Your task to perform on an android device: When is my next meeting? Image 0: 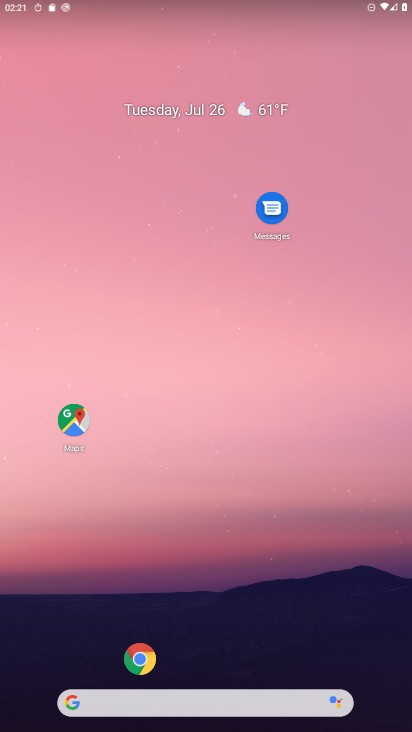
Step 0: click (90, 703)
Your task to perform on an android device: When is my next meeting? Image 1: 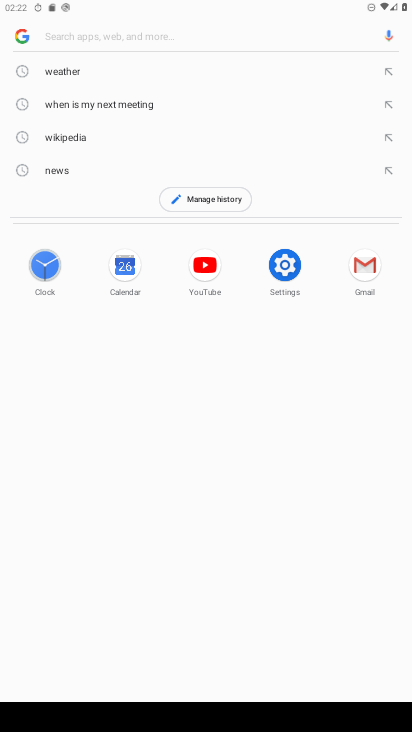
Step 1: press home button
Your task to perform on an android device: When is my next meeting? Image 2: 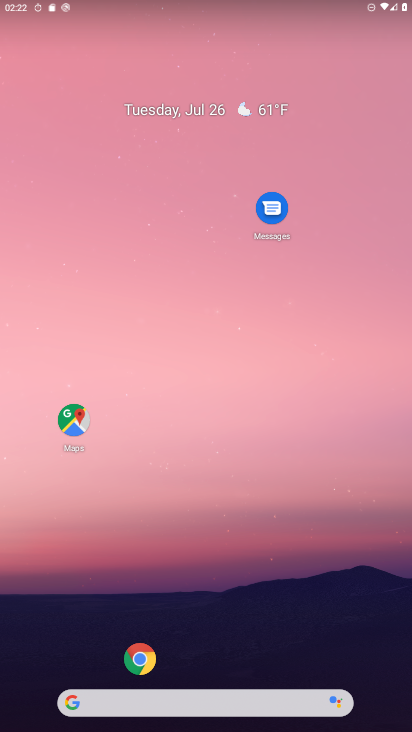
Step 2: drag from (28, 678) to (229, 101)
Your task to perform on an android device: When is my next meeting? Image 3: 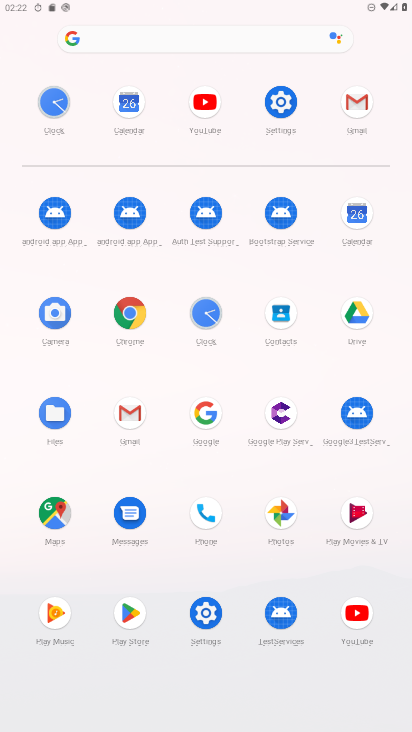
Step 3: click (354, 220)
Your task to perform on an android device: When is my next meeting? Image 4: 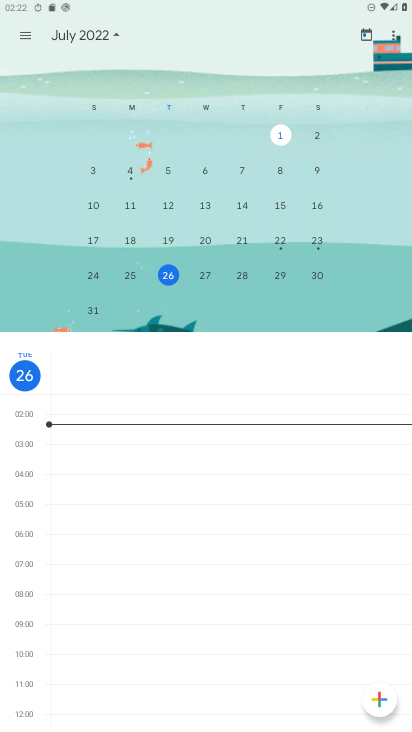
Step 4: click (27, 39)
Your task to perform on an android device: When is my next meeting? Image 5: 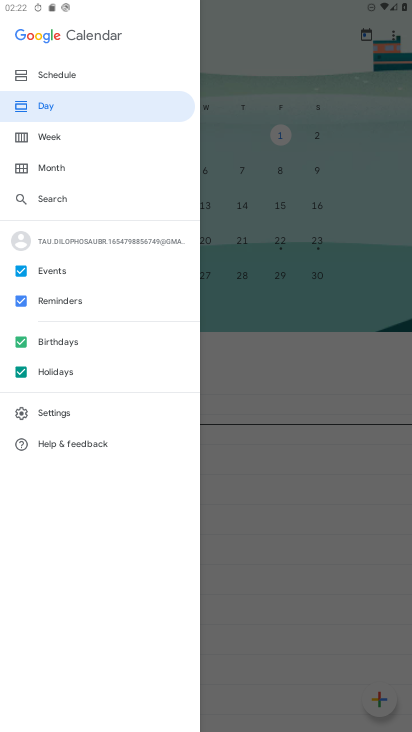
Step 5: task complete